Your task to perform on an android device: Go to wifi settings Image 0: 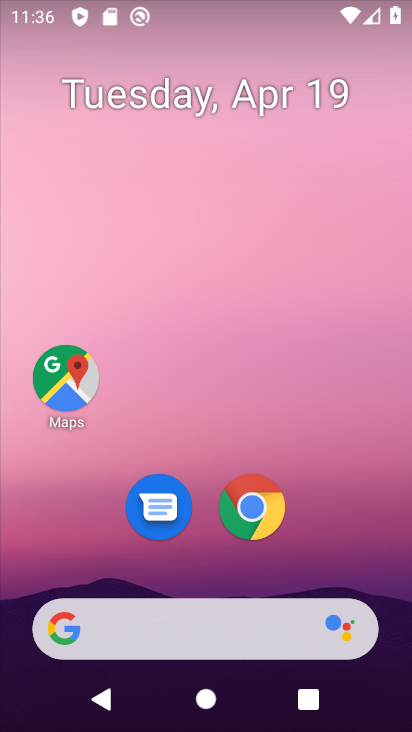
Step 0: drag from (343, 542) to (399, 112)
Your task to perform on an android device: Go to wifi settings Image 1: 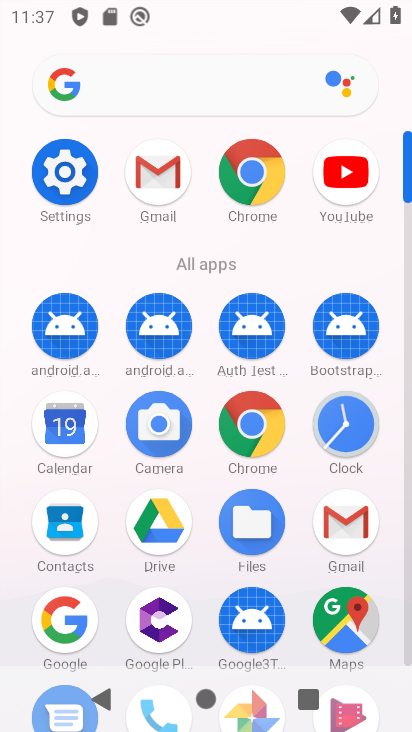
Step 1: click (90, 186)
Your task to perform on an android device: Go to wifi settings Image 2: 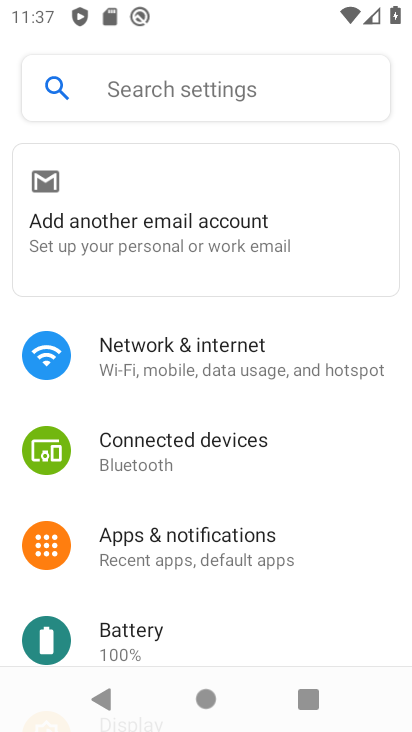
Step 2: click (260, 370)
Your task to perform on an android device: Go to wifi settings Image 3: 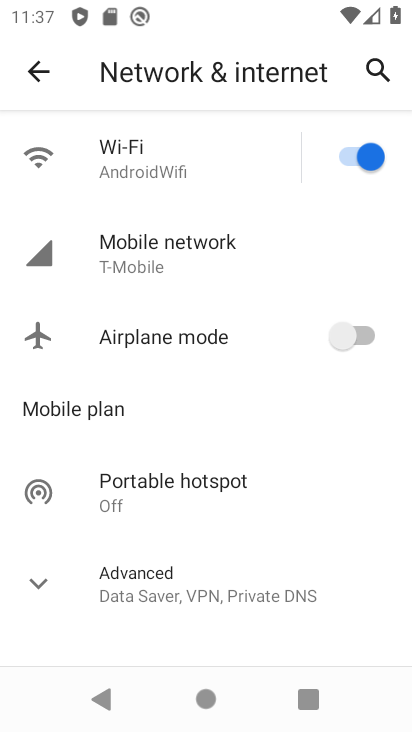
Step 3: click (192, 156)
Your task to perform on an android device: Go to wifi settings Image 4: 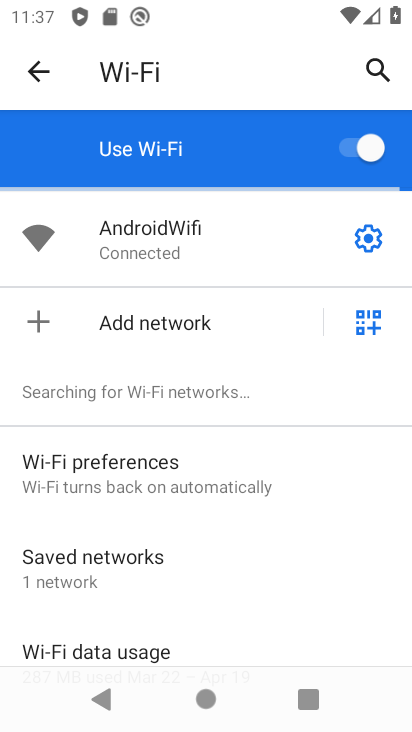
Step 4: click (360, 238)
Your task to perform on an android device: Go to wifi settings Image 5: 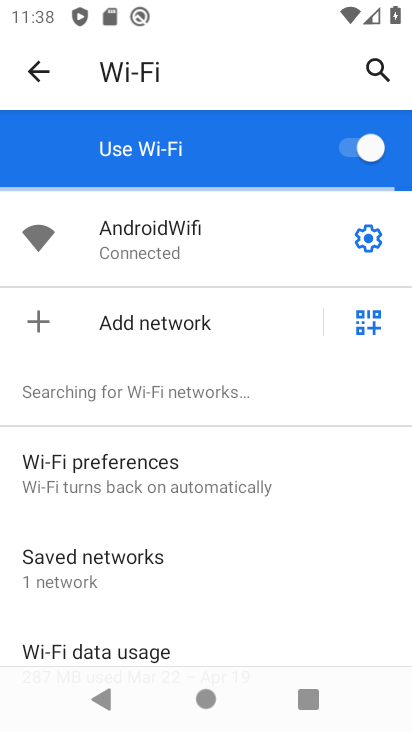
Step 5: click (360, 238)
Your task to perform on an android device: Go to wifi settings Image 6: 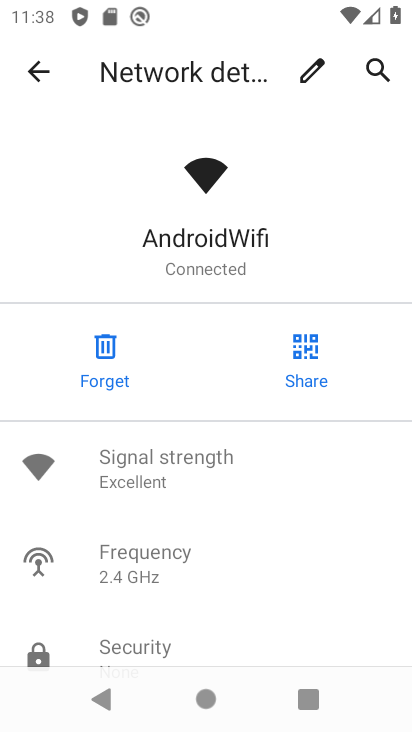
Step 6: task complete